Your task to perform on an android device: remove spam from my inbox in the gmail app Image 0: 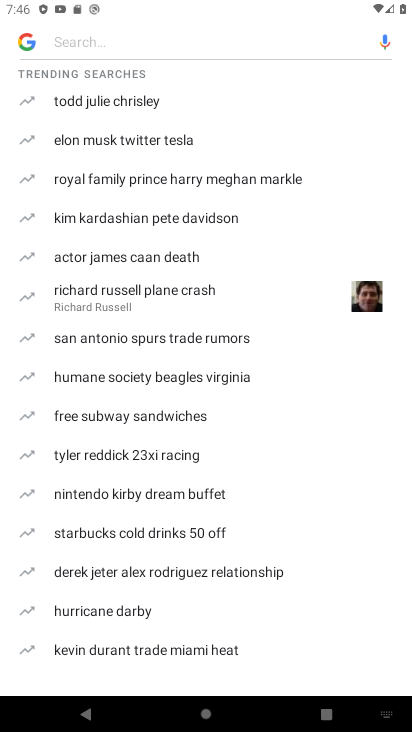
Step 0: press home button
Your task to perform on an android device: remove spam from my inbox in the gmail app Image 1: 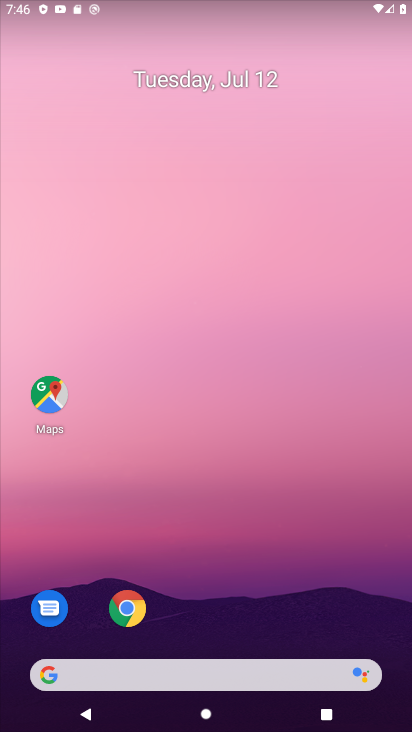
Step 1: drag from (177, 680) to (273, 244)
Your task to perform on an android device: remove spam from my inbox in the gmail app Image 2: 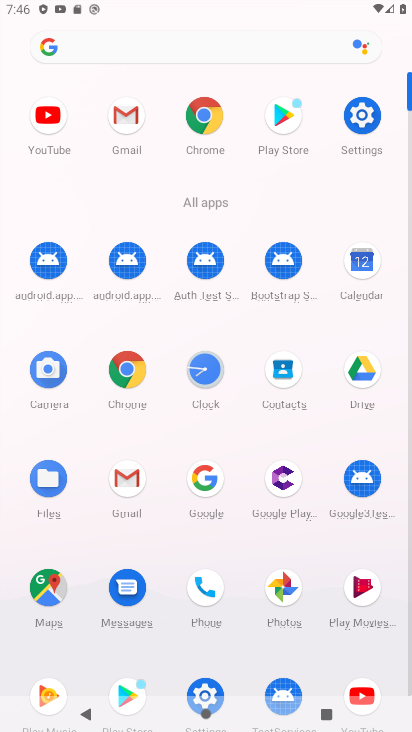
Step 2: click (123, 127)
Your task to perform on an android device: remove spam from my inbox in the gmail app Image 3: 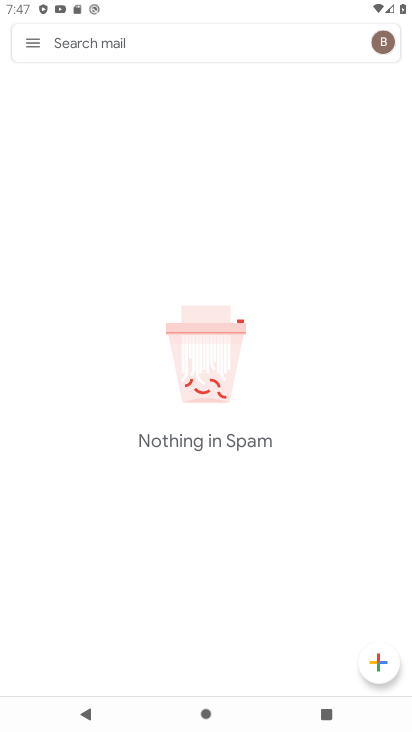
Step 3: task complete